Your task to perform on an android device: Search for seafood restaurants on Google Maps Image 0: 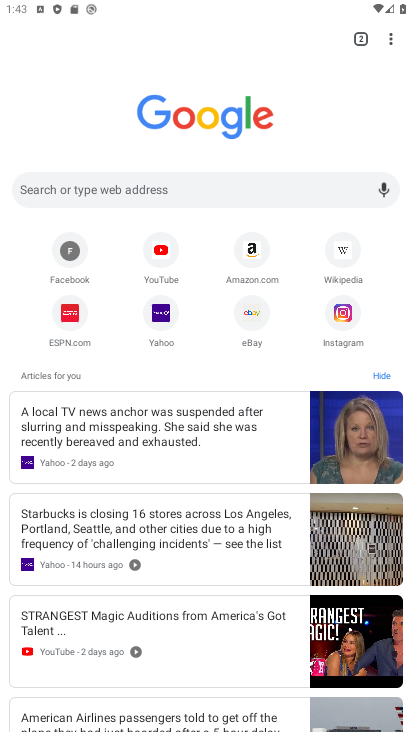
Step 0: press home button
Your task to perform on an android device: Search for seafood restaurants on Google Maps Image 1: 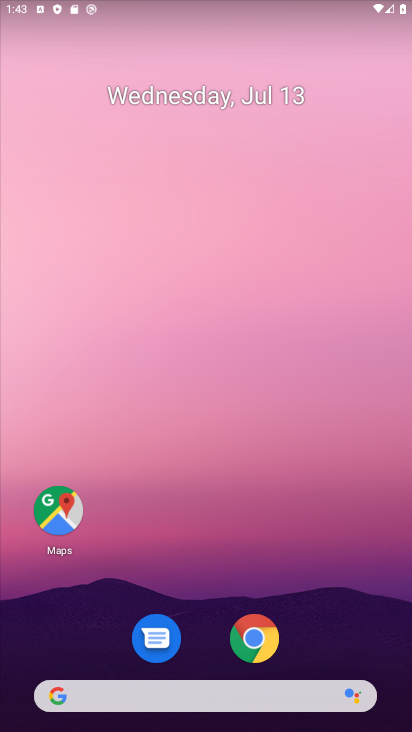
Step 1: click (71, 497)
Your task to perform on an android device: Search for seafood restaurants on Google Maps Image 2: 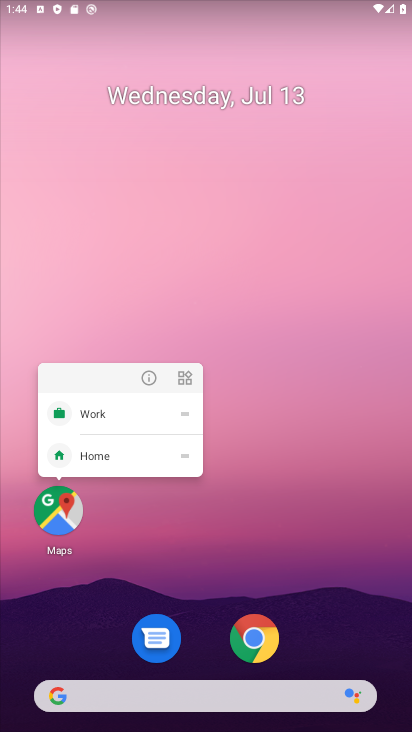
Step 2: click (55, 522)
Your task to perform on an android device: Search for seafood restaurants on Google Maps Image 3: 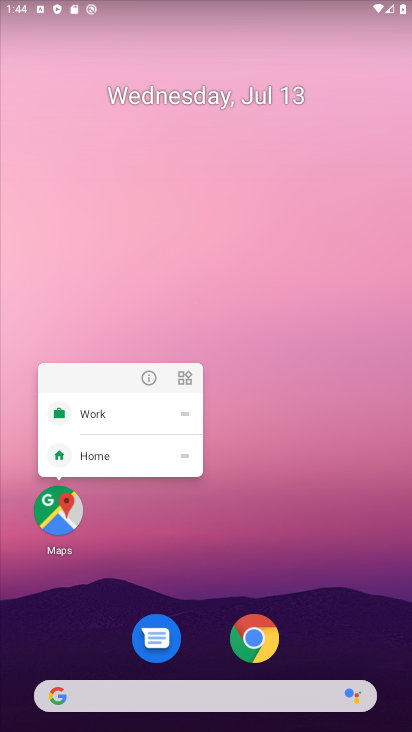
Step 3: click (55, 522)
Your task to perform on an android device: Search for seafood restaurants on Google Maps Image 4: 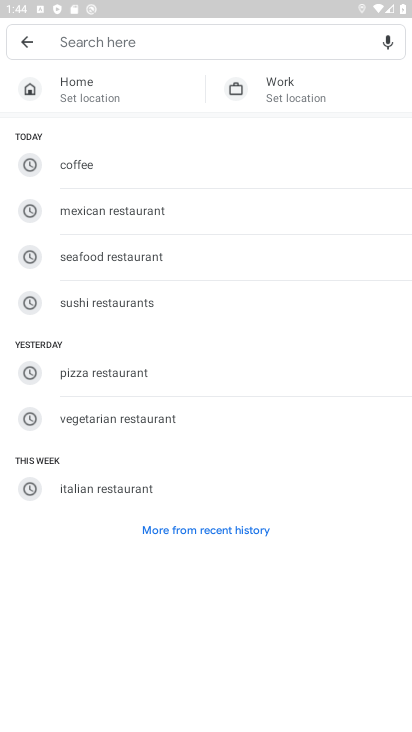
Step 4: click (122, 256)
Your task to perform on an android device: Search for seafood restaurants on Google Maps Image 5: 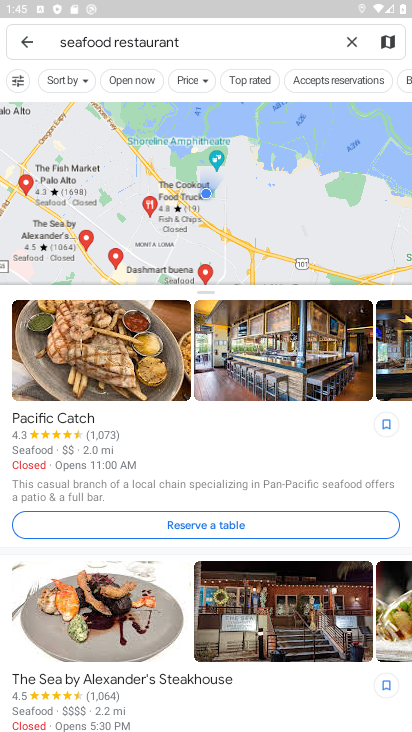
Step 5: task complete